Your task to perform on an android device: Is it going to rain tomorrow? Image 0: 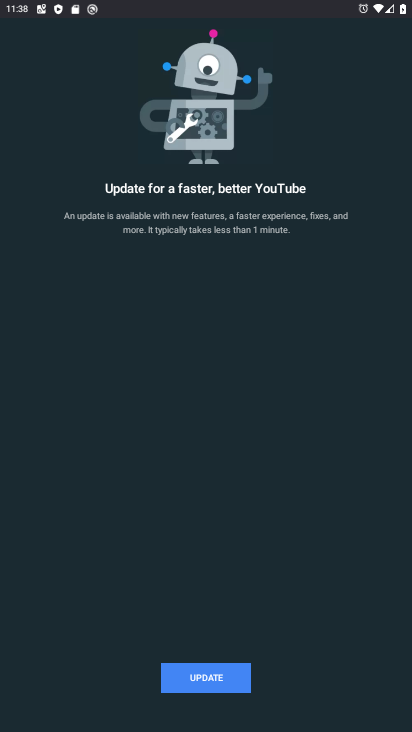
Step 0: press home button
Your task to perform on an android device: Is it going to rain tomorrow? Image 1: 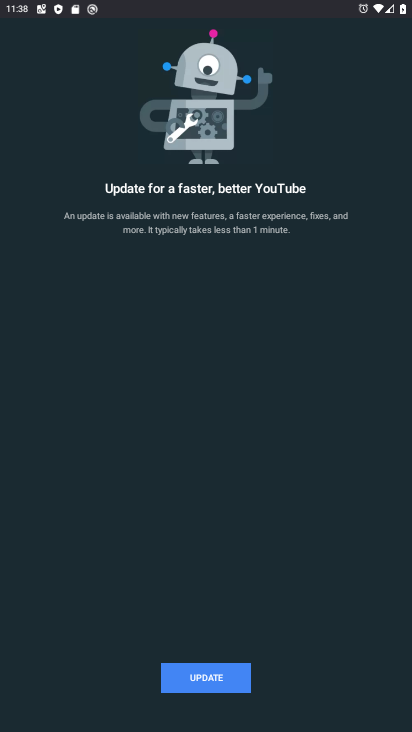
Step 1: press home button
Your task to perform on an android device: Is it going to rain tomorrow? Image 2: 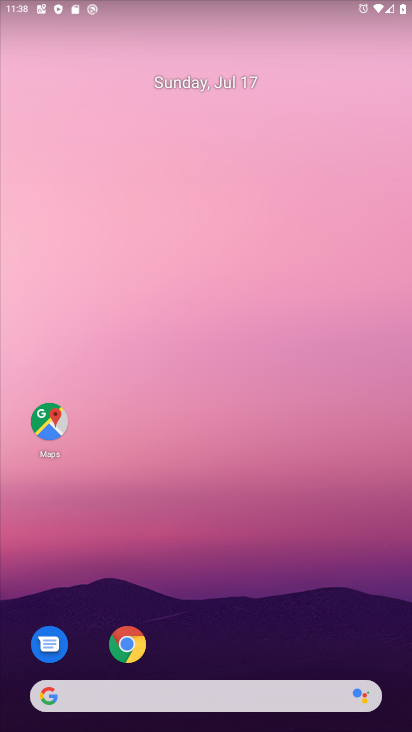
Step 2: drag from (304, 619) to (246, 22)
Your task to perform on an android device: Is it going to rain tomorrow? Image 3: 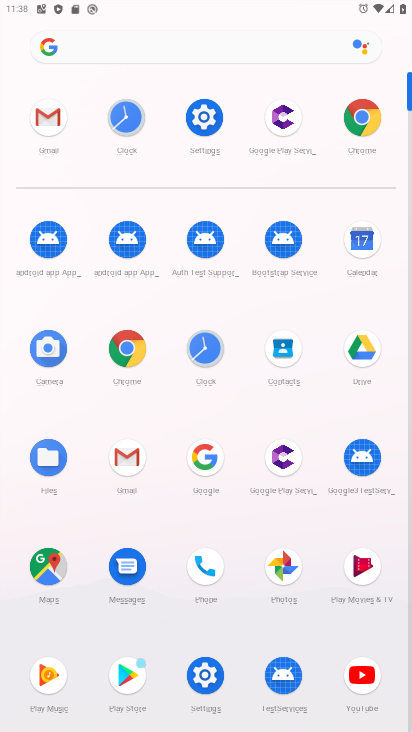
Step 3: click (364, 112)
Your task to perform on an android device: Is it going to rain tomorrow? Image 4: 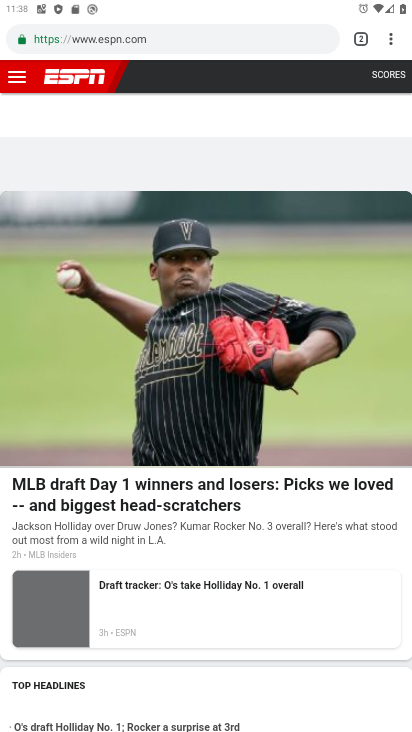
Step 4: click (177, 34)
Your task to perform on an android device: Is it going to rain tomorrow? Image 5: 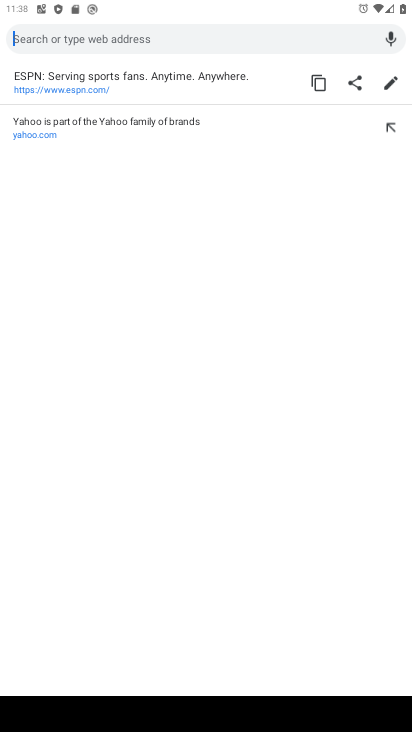
Step 5: type "is it going to rainn tommorow"
Your task to perform on an android device: Is it going to rain tomorrow? Image 6: 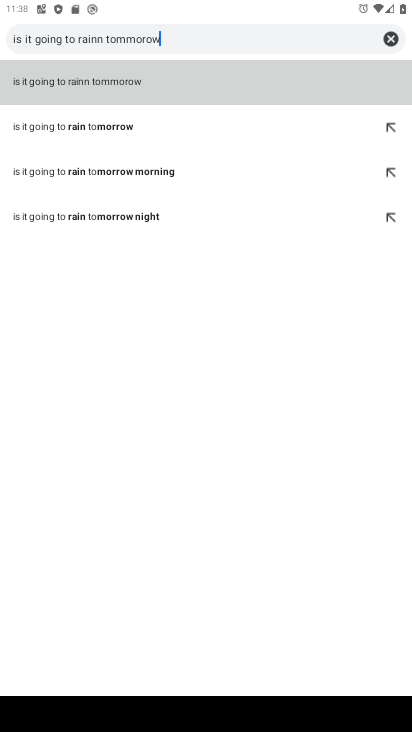
Step 6: click (97, 79)
Your task to perform on an android device: Is it going to rain tomorrow? Image 7: 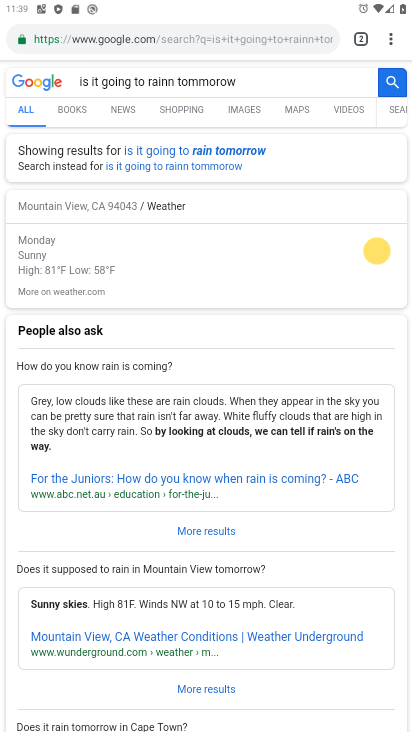
Step 7: task complete